Your task to perform on an android device: Open my contact list Image 0: 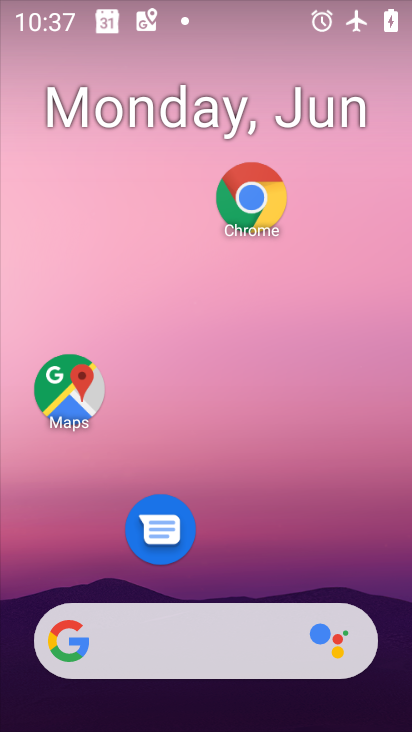
Step 0: drag from (225, 568) to (221, 204)
Your task to perform on an android device: Open my contact list Image 1: 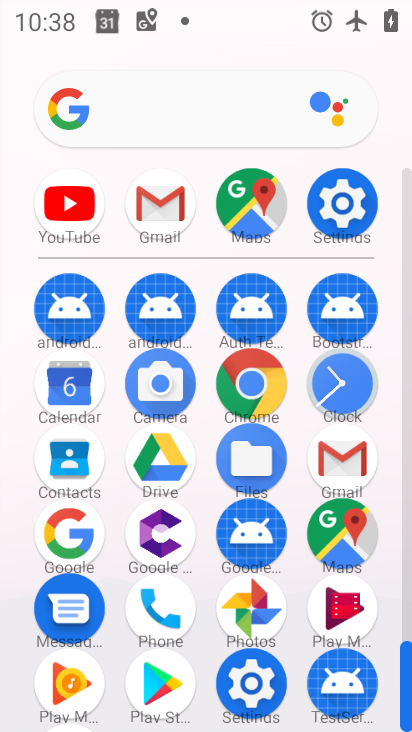
Step 1: click (90, 469)
Your task to perform on an android device: Open my contact list Image 2: 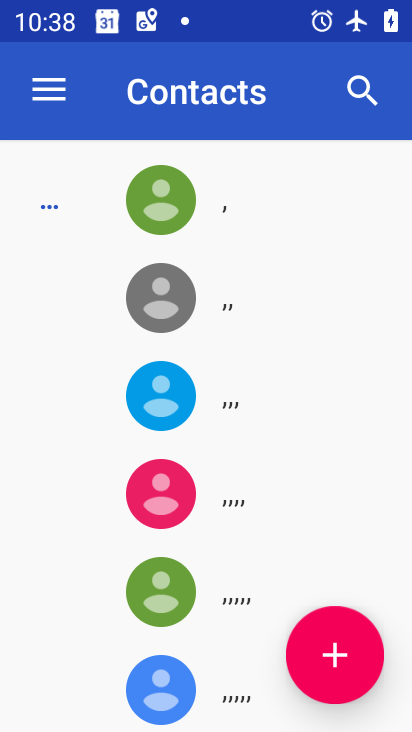
Step 2: task complete